Your task to perform on an android device: see tabs open on other devices in the chrome app Image 0: 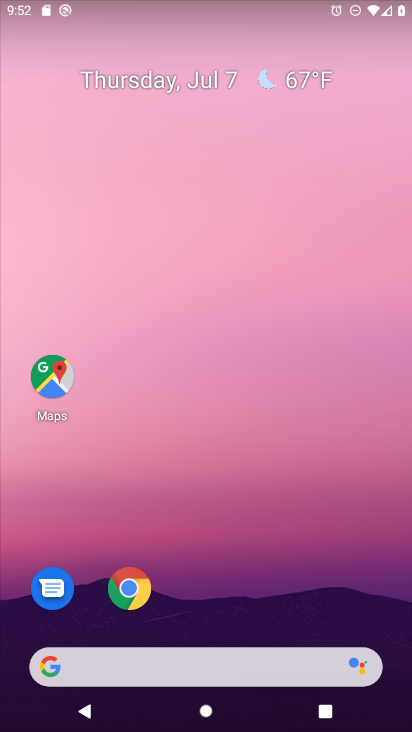
Step 0: click (131, 587)
Your task to perform on an android device: see tabs open on other devices in the chrome app Image 1: 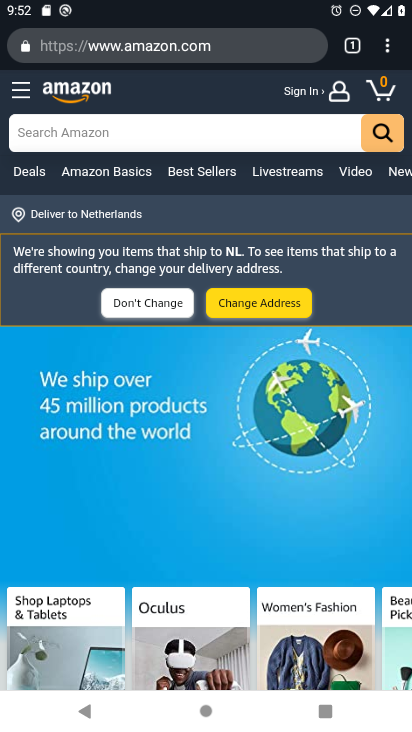
Step 1: click (390, 46)
Your task to perform on an android device: see tabs open on other devices in the chrome app Image 2: 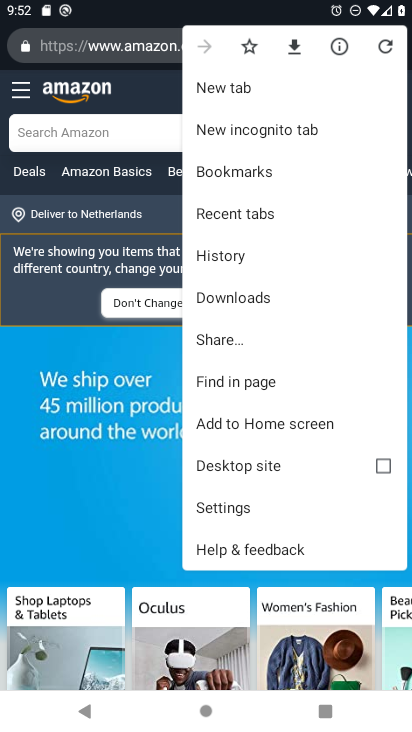
Step 2: click (261, 209)
Your task to perform on an android device: see tabs open on other devices in the chrome app Image 3: 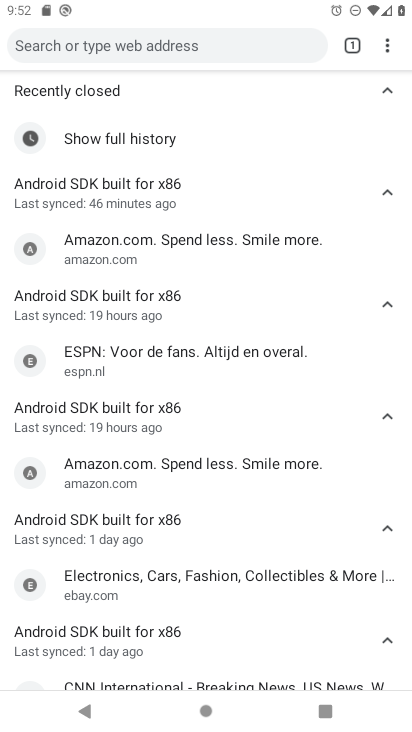
Step 3: task complete